Your task to perform on an android device: toggle location history Image 0: 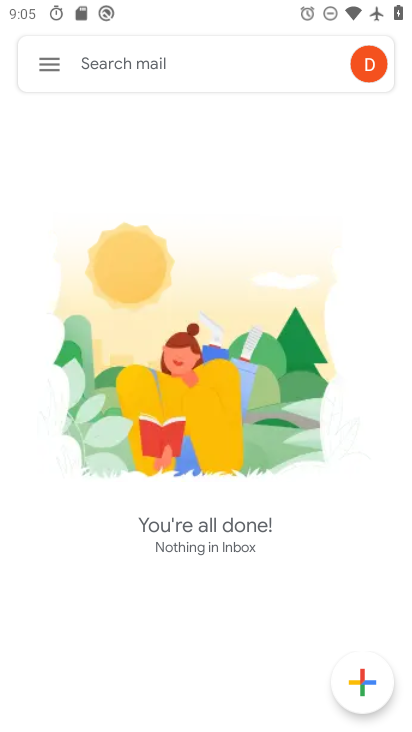
Step 0: press home button
Your task to perform on an android device: toggle location history Image 1: 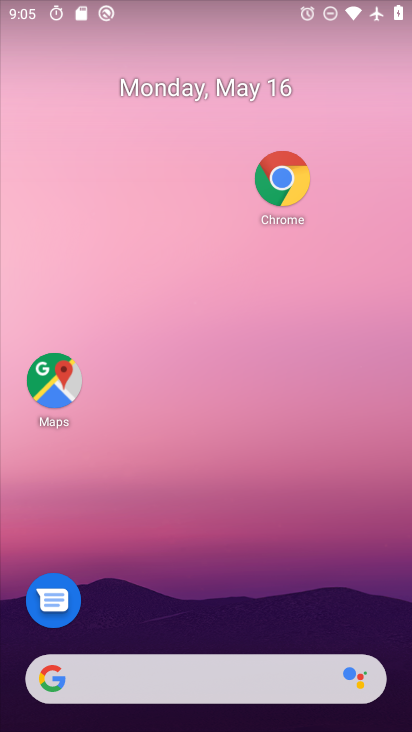
Step 1: drag from (119, 682) to (314, 89)
Your task to perform on an android device: toggle location history Image 2: 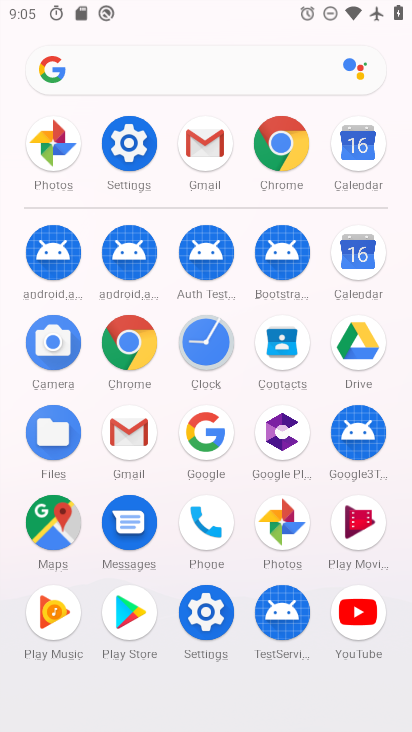
Step 2: click (124, 153)
Your task to perform on an android device: toggle location history Image 3: 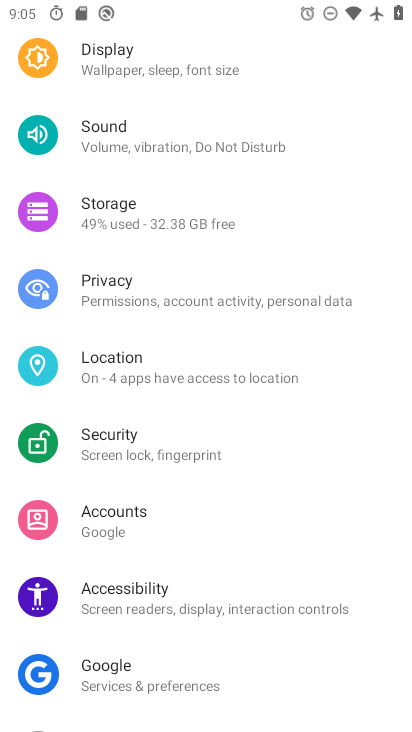
Step 3: click (142, 366)
Your task to perform on an android device: toggle location history Image 4: 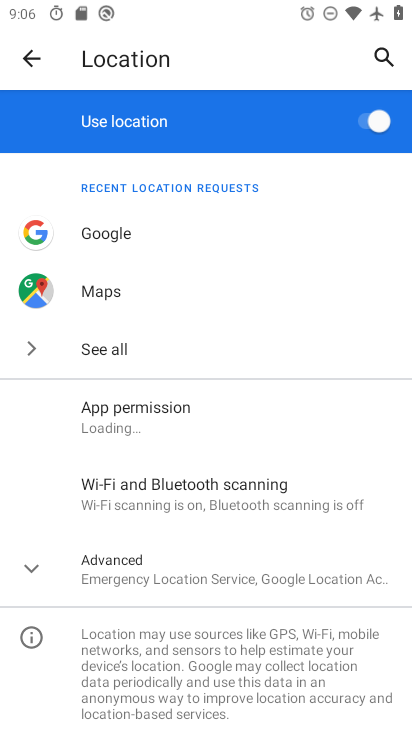
Step 4: click (181, 573)
Your task to perform on an android device: toggle location history Image 5: 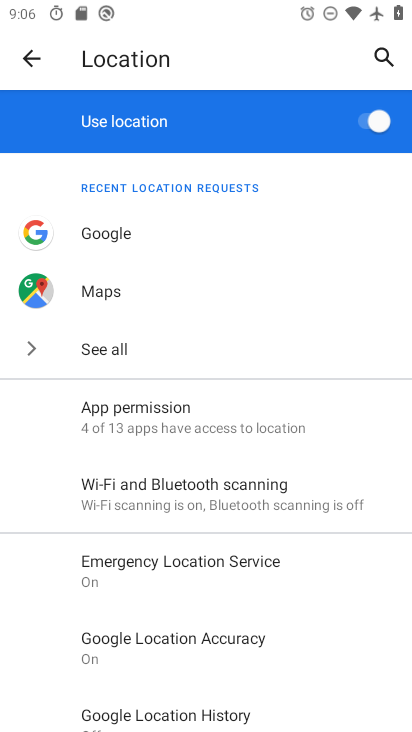
Step 5: drag from (309, 617) to (375, 262)
Your task to perform on an android device: toggle location history Image 6: 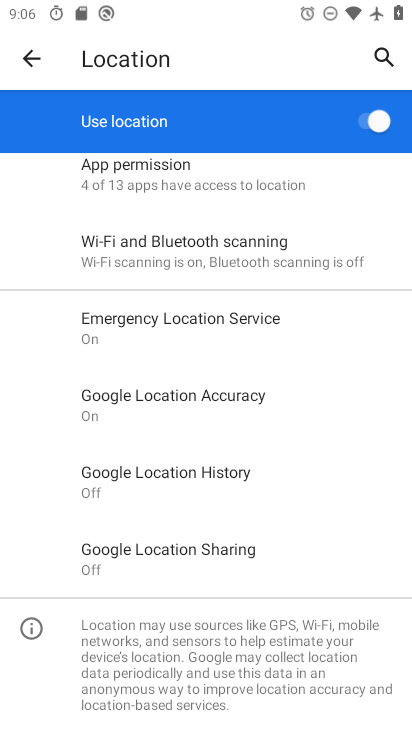
Step 6: click (161, 473)
Your task to perform on an android device: toggle location history Image 7: 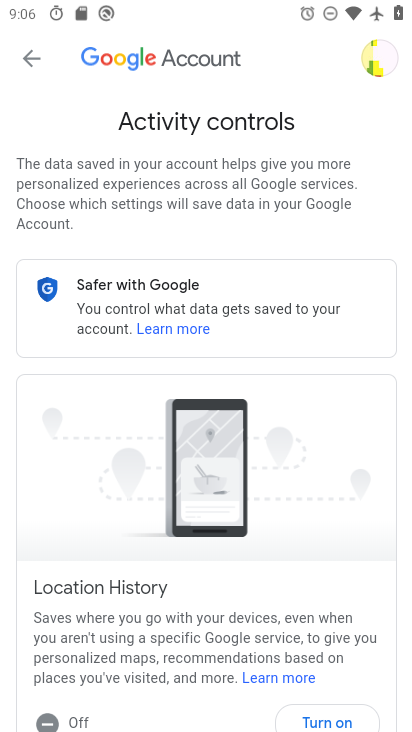
Step 7: drag from (255, 584) to (286, 143)
Your task to perform on an android device: toggle location history Image 8: 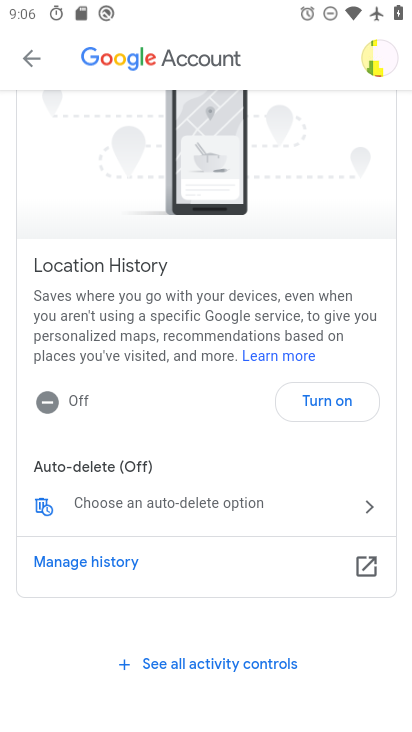
Step 8: click (319, 404)
Your task to perform on an android device: toggle location history Image 9: 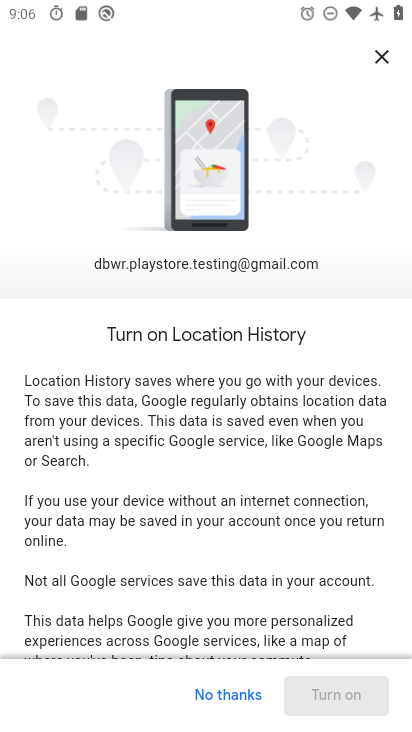
Step 9: drag from (260, 602) to (301, 92)
Your task to perform on an android device: toggle location history Image 10: 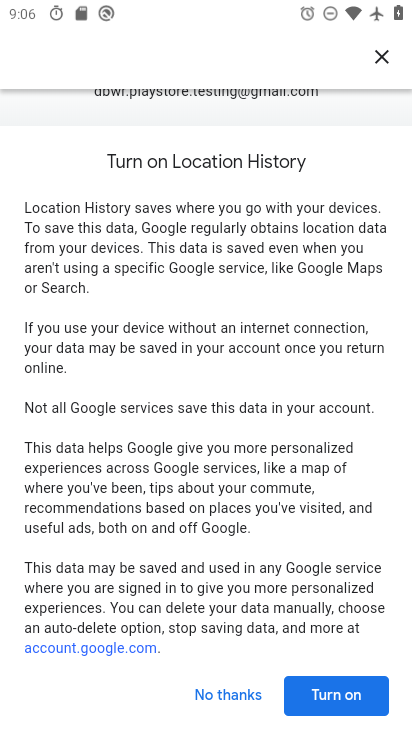
Step 10: click (328, 704)
Your task to perform on an android device: toggle location history Image 11: 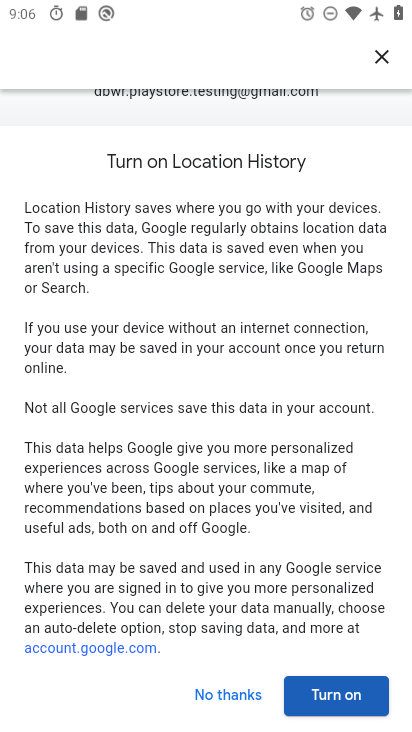
Step 11: click (335, 701)
Your task to perform on an android device: toggle location history Image 12: 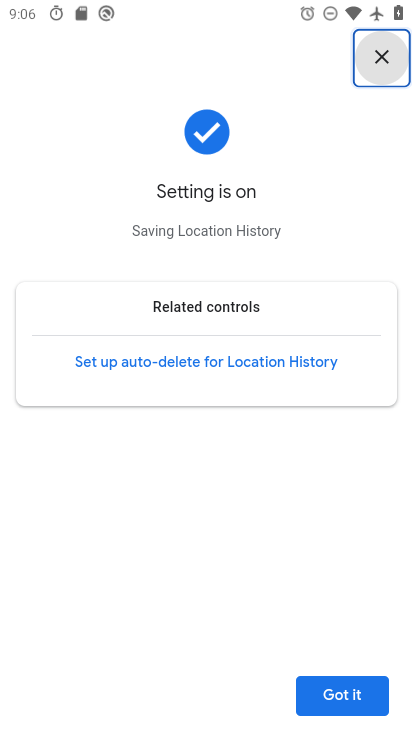
Step 12: click (334, 694)
Your task to perform on an android device: toggle location history Image 13: 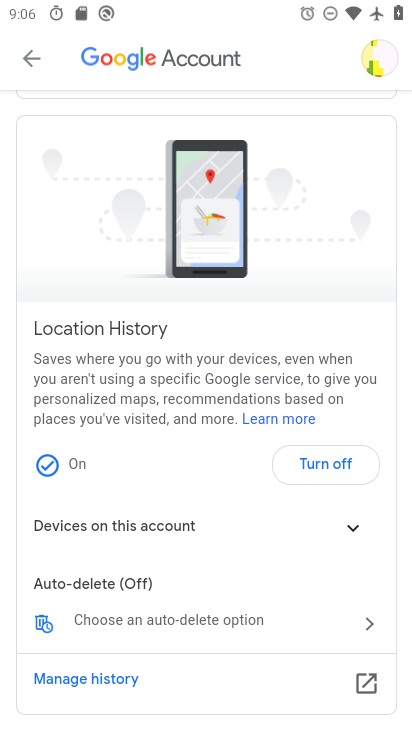
Step 13: task complete